Your task to perform on an android device: set an alarm Image 0: 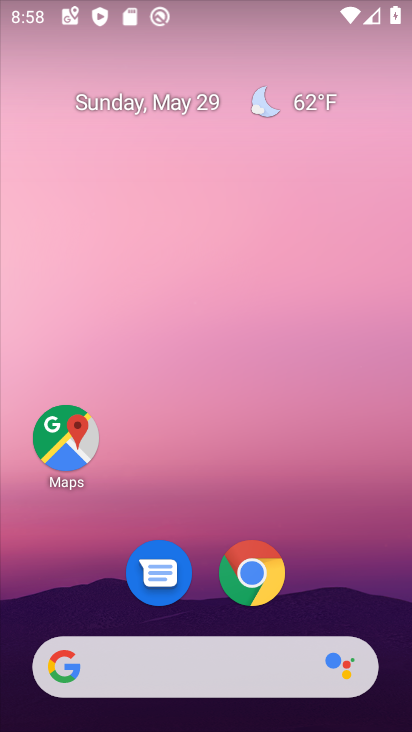
Step 0: press home button
Your task to perform on an android device: set an alarm Image 1: 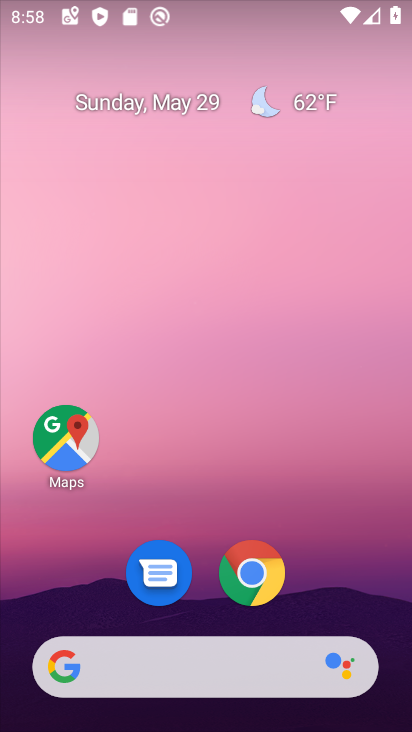
Step 1: drag from (352, 617) to (236, 74)
Your task to perform on an android device: set an alarm Image 2: 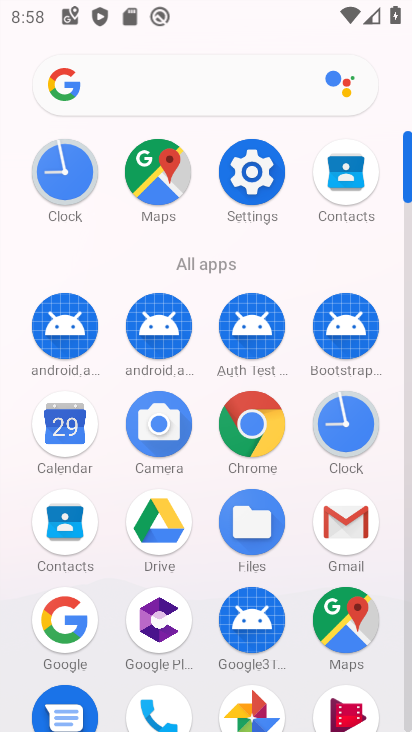
Step 2: click (341, 451)
Your task to perform on an android device: set an alarm Image 3: 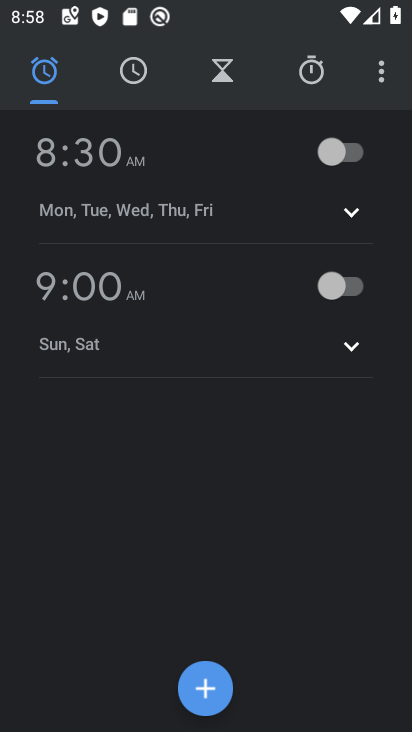
Step 3: click (334, 152)
Your task to perform on an android device: set an alarm Image 4: 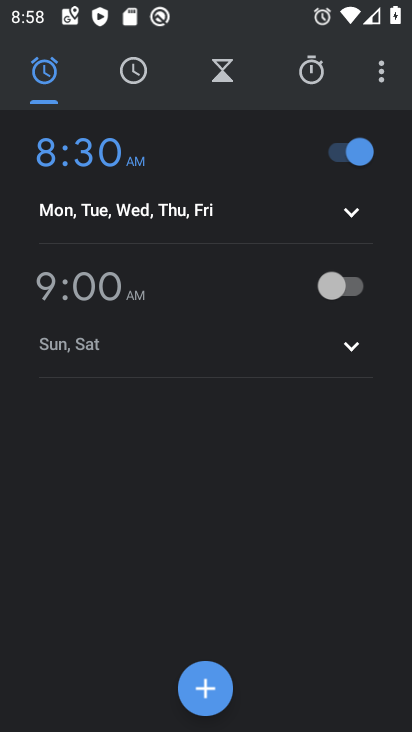
Step 4: task complete